Your task to perform on an android device: open device folders in google photos Image 0: 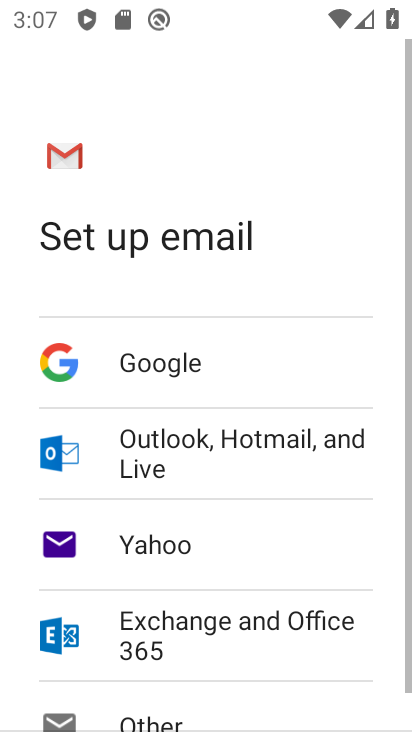
Step 0: press home button
Your task to perform on an android device: open device folders in google photos Image 1: 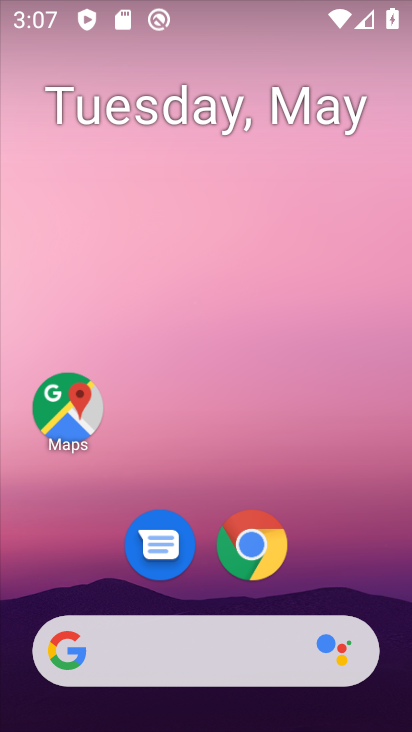
Step 1: drag from (267, 573) to (262, 160)
Your task to perform on an android device: open device folders in google photos Image 2: 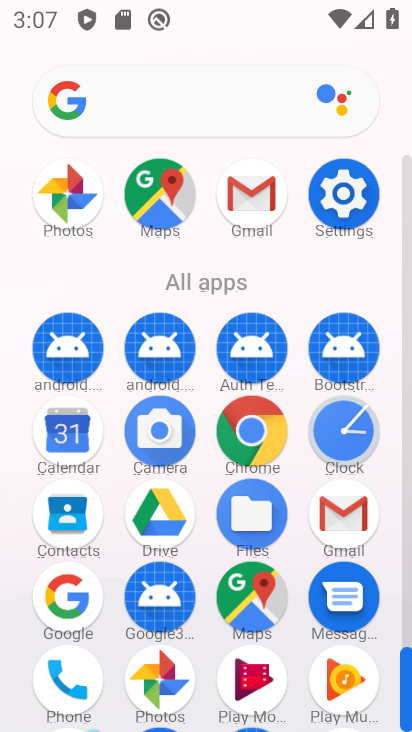
Step 2: click (153, 674)
Your task to perform on an android device: open device folders in google photos Image 3: 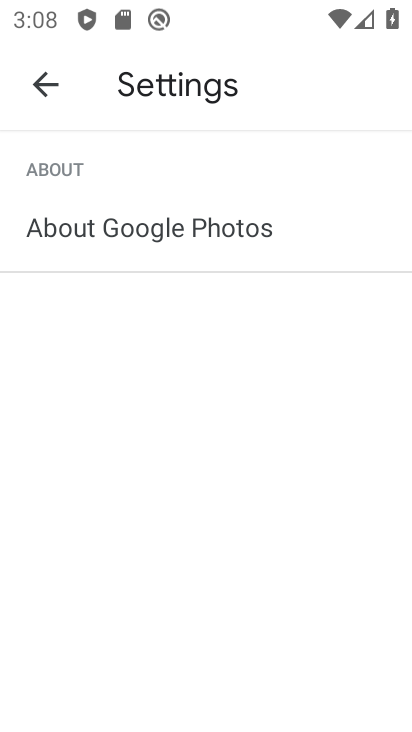
Step 3: press home button
Your task to perform on an android device: open device folders in google photos Image 4: 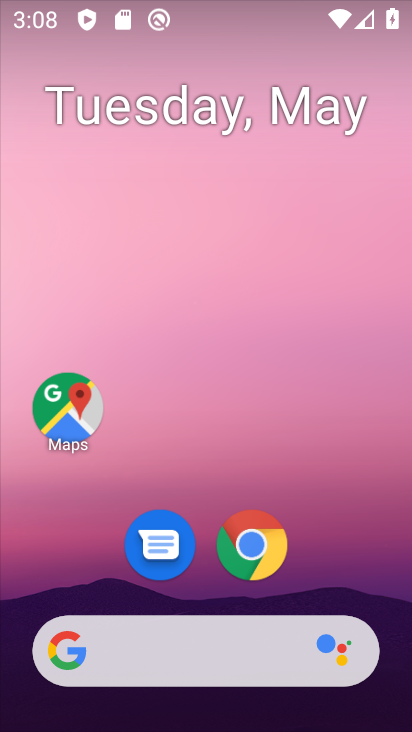
Step 4: drag from (227, 630) to (230, 411)
Your task to perform on an android device: open device folders in google photos Image 5: 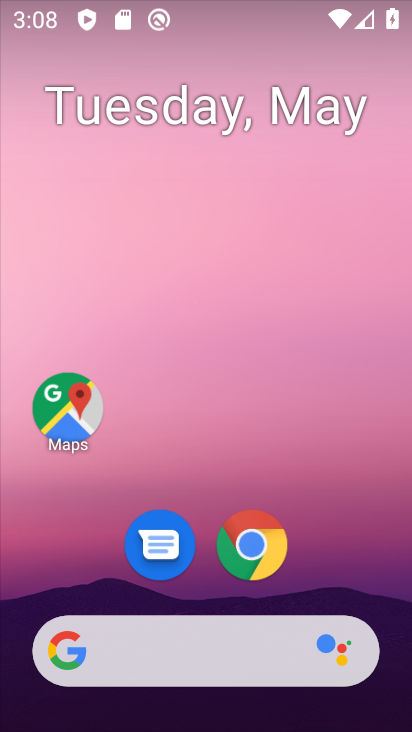
Step 5: drag from (215, 565) to (215, 281)
Your task to perform on an android device: open device folders in google photos Image 6: 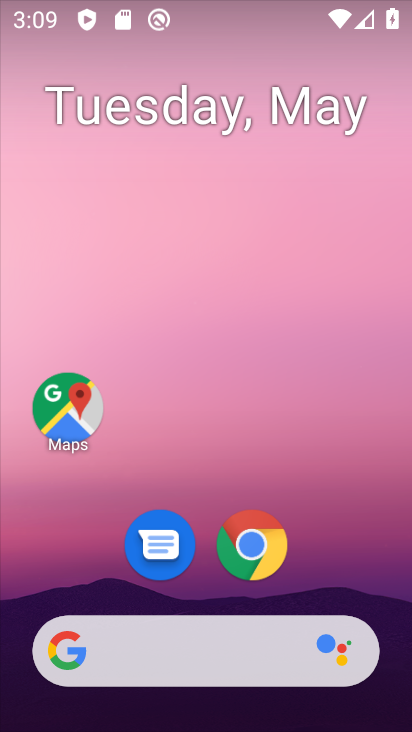
Step 6: drag from (144, 559) to (173, 248)
Your task to perform on an android device: open device folders in google photos Image 7: 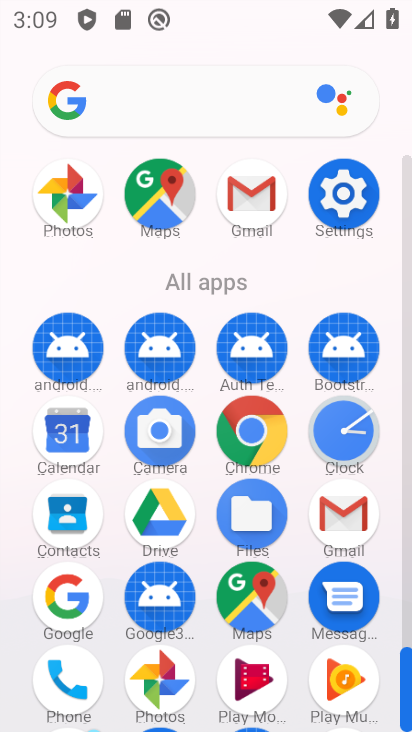
Step 7: click (65, 182)
Your task to perform on an android device: open device folders in google photos Image 8: 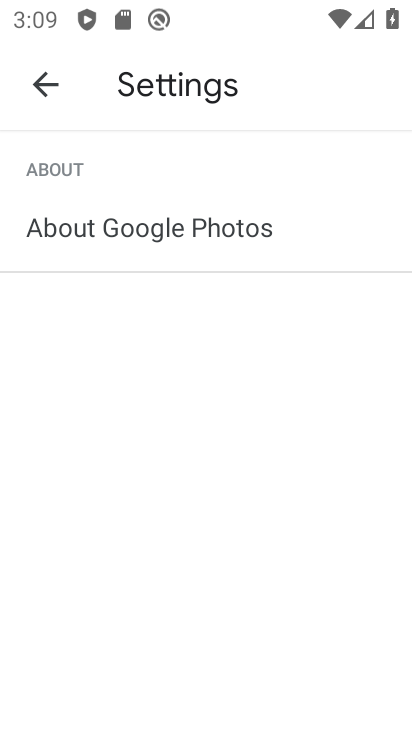
Step 8: click (40, 85)
Your task to perform on an android device: open device folders in google photos Image 9: 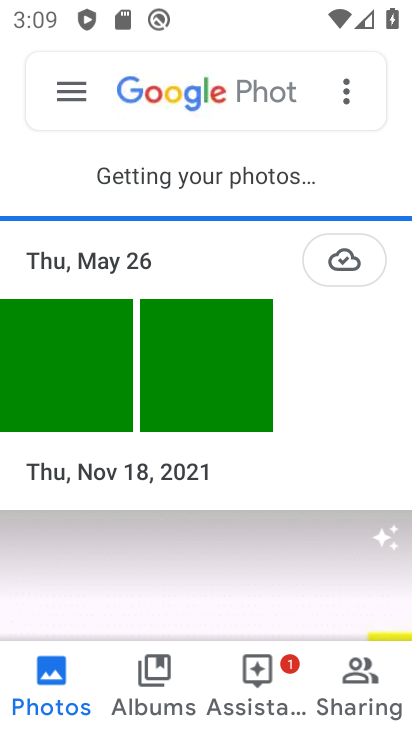
Step 9: click (55, 94)
Your task to perform on an android device: open device folders in google photos Image 10: 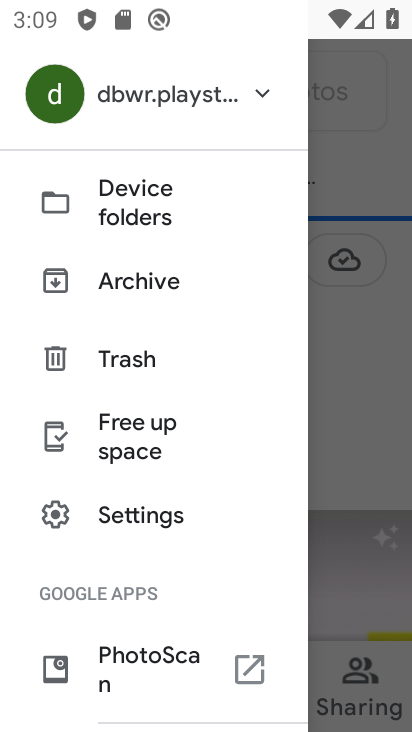
Step 10: click (114, 179)
Your task to perform on an android device: open device folders in google photos Image 11: 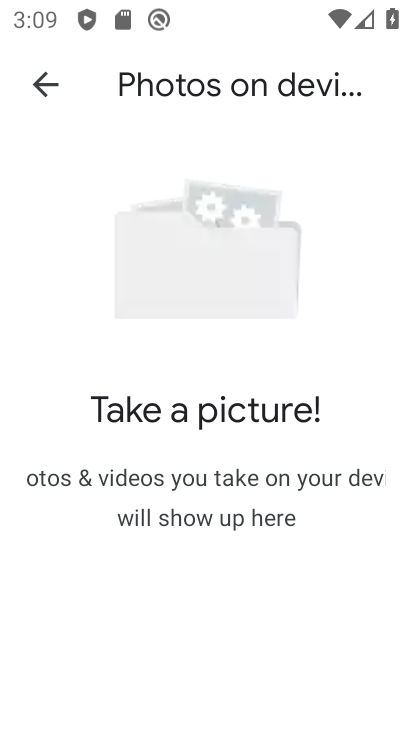
Step 11: task complete